Your task to perform on an android device: Go to wifi settings Image 0: 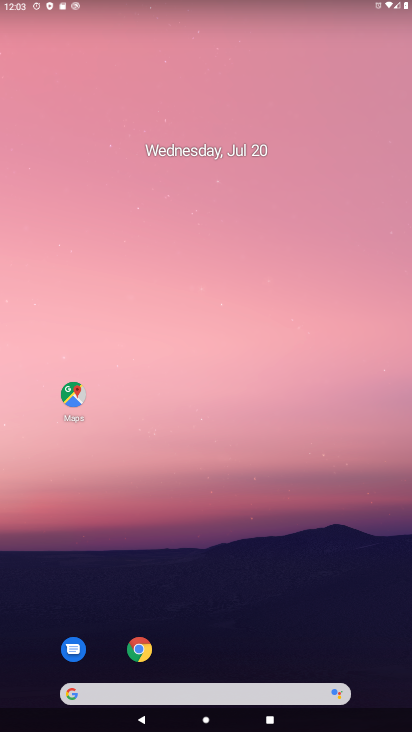
Step 0: drag from (239, 653) to (226, 248)
Your task to perform on an android device: Go to wifi settings Image 1: 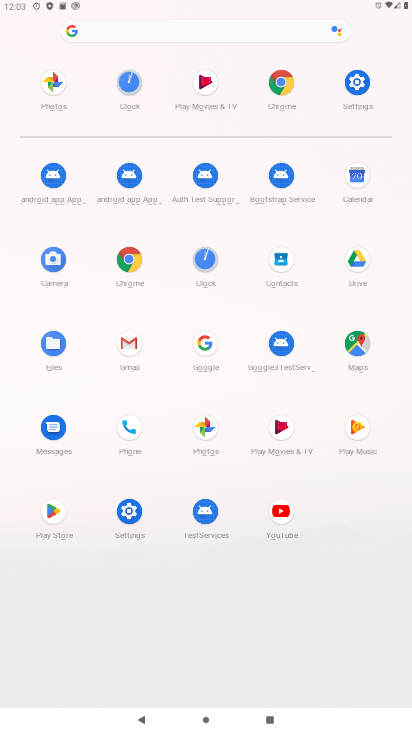
Step 1: click (365, 88)
Your task to perform on an android device: Go to wifi settings Image 2: 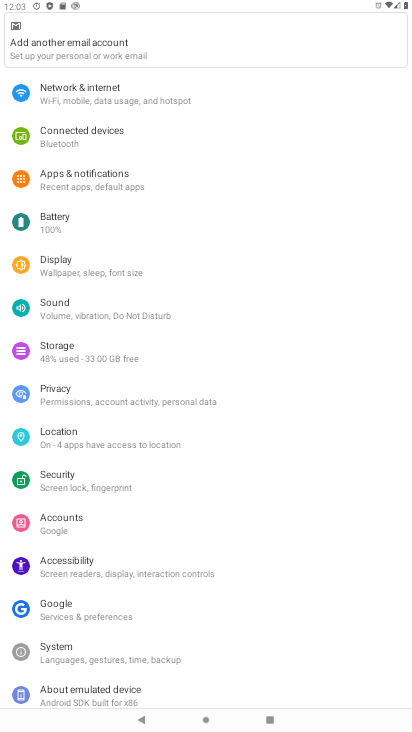
Step 2: click (94, 84)
Your task to perform on an android device: Go to wifi settings Image 3: 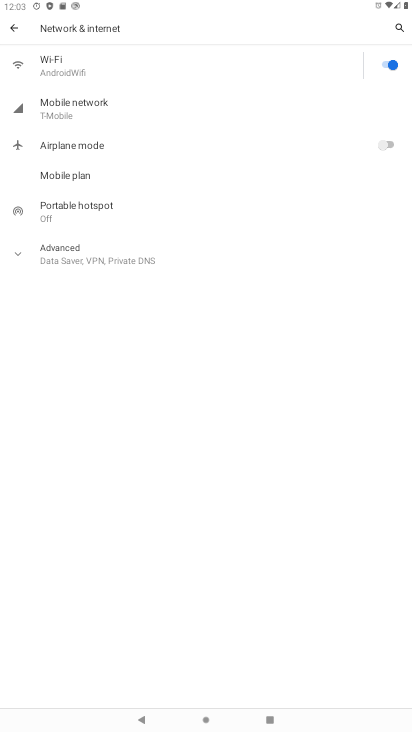
Step 3: click (54, 60)
Your task to perform on an android device: Go to wifi settings Image 4: 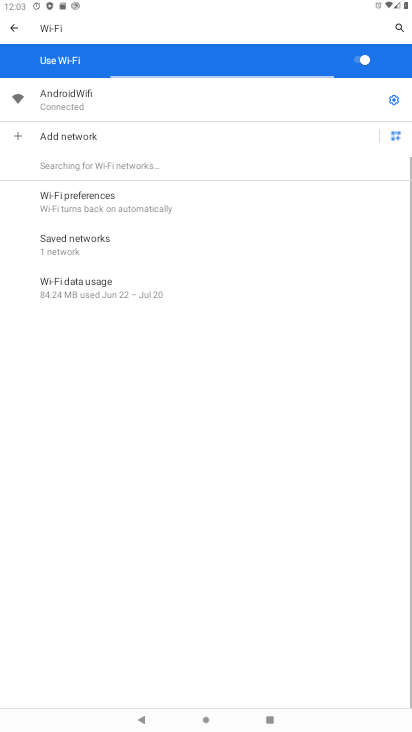
Step 4: task complete